Your task to perform on an android device: Set the phone to "Do not disturb". Image 0: 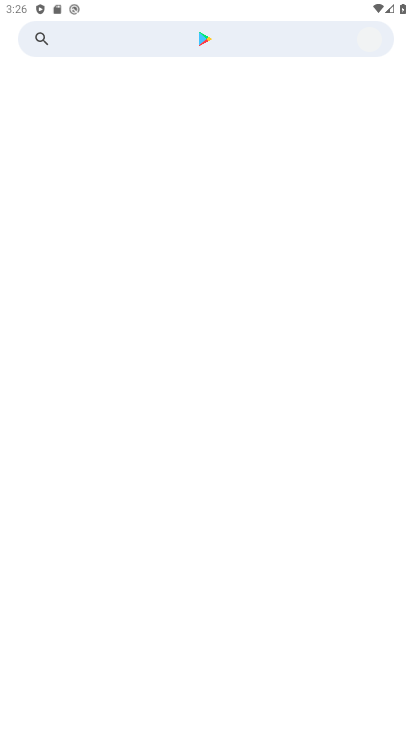
Step 0: press home button
Your task to perform on an android device: Set the phone to "Do not disturb". Image 1: 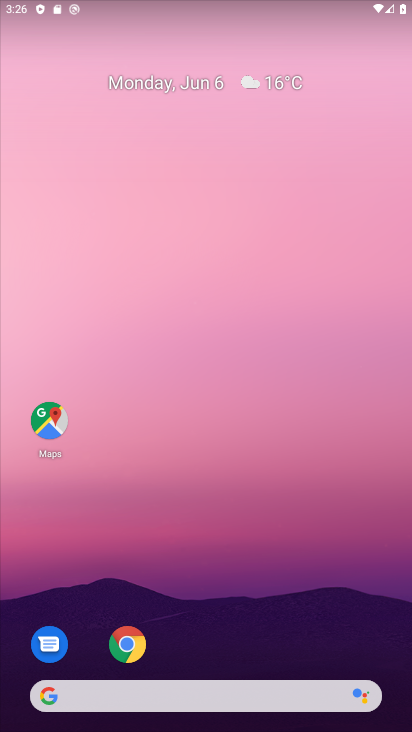
Step 1: drag from (267, 610) to (239, 58)
Your task to perform on an android device: Set the phone to "Do not disturb". Image 2: 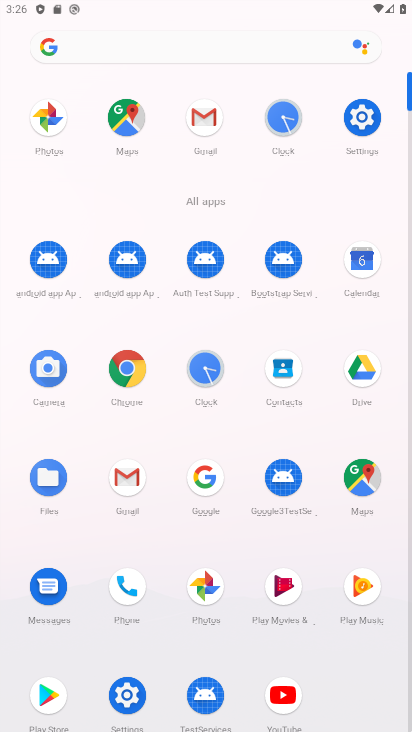
Step 2: click (356, 119)
Your task to perform on an android device: Set the phone to "Do not disturb". Image 3: 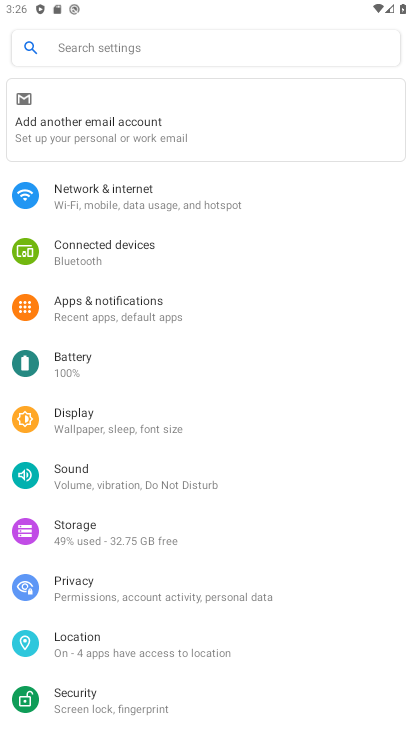
Step 3: click (192, 477)
Your task to perform on an android device: Set the phone to "Do not disturb". Image 4: 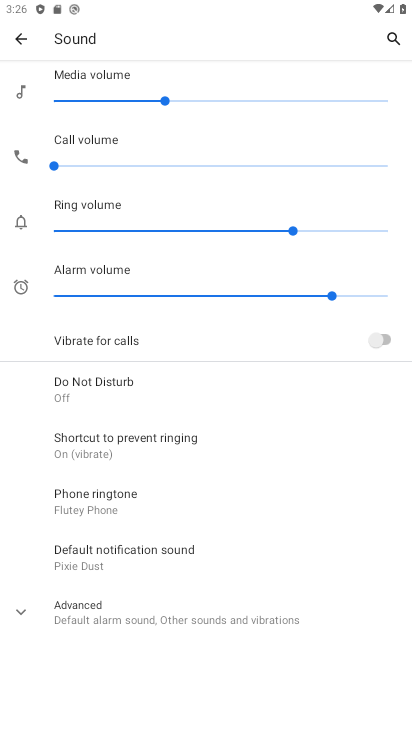
Step 4: click (106, 383)
Your task to perform on an android device: Set the phone to "Do not disturb". Image 5: 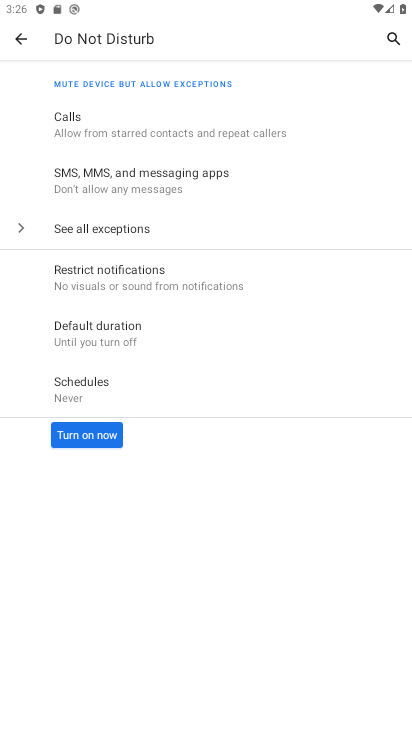
Step 5: click (87, 434)
Your task to perform on an android device: Set the phone to "Do not disturb". Image 6: 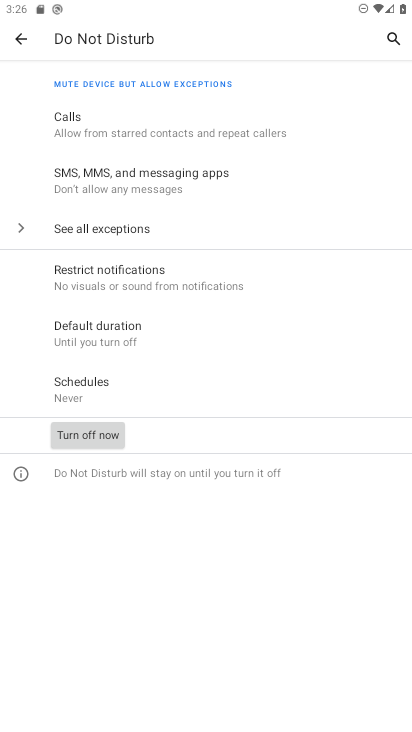
Step 6: task complete